Your task to perform on an android device: turn off wifi Image 0: 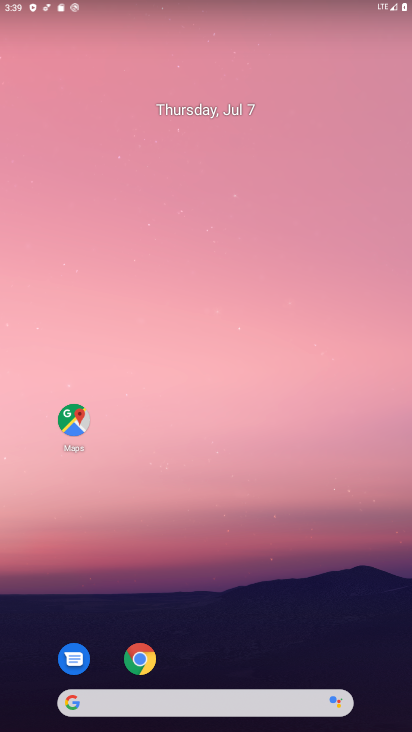
Step 0: drag from (258, 417) to (263, 32)
Your task to perform on an android device: turn off wifi Image 1: 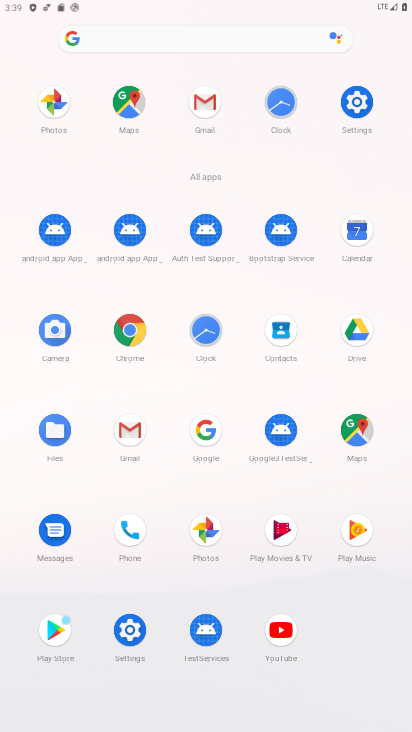
Step 1: click (127, 632)
Your task to perform on an android device: turn off wifi Image 2: 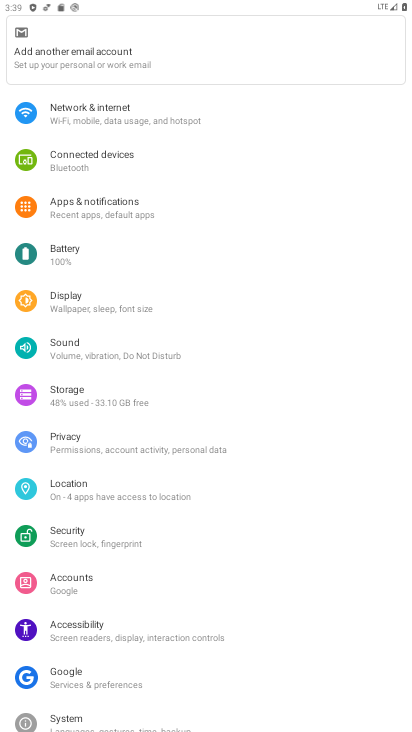
Step 2: click (212, 116)
Your task to perform on an android device: turn off wifi Image 3: 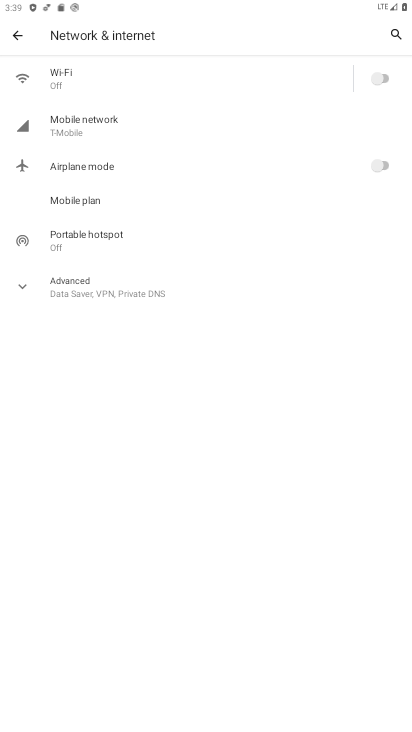
Step 3: task complete